Your task to perform on an android device: turn off location Image 0: 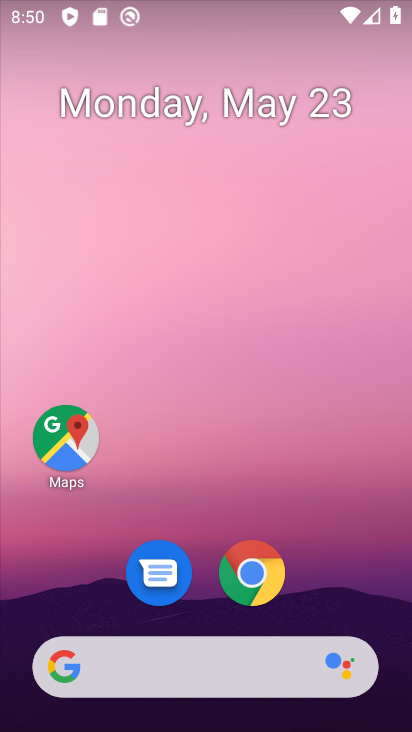
Step 0: drag from (367, 599) to (353, 229)
Your task to perform on an android device: turn off location Image 1: 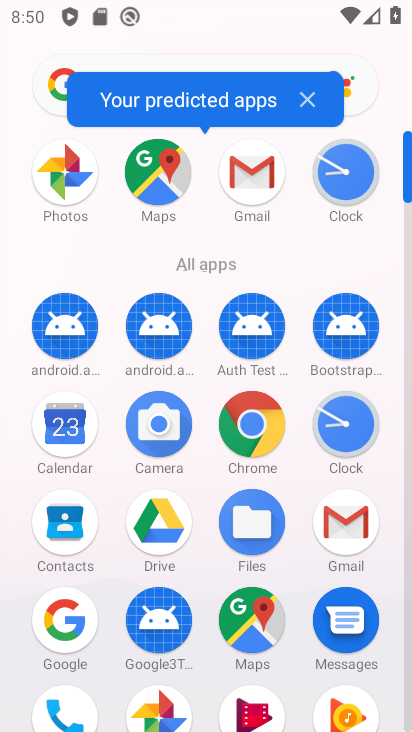
Step 1: drag from (382, 617) to (391, 345)
Your task to perform on an android device: turn off location Image 2: 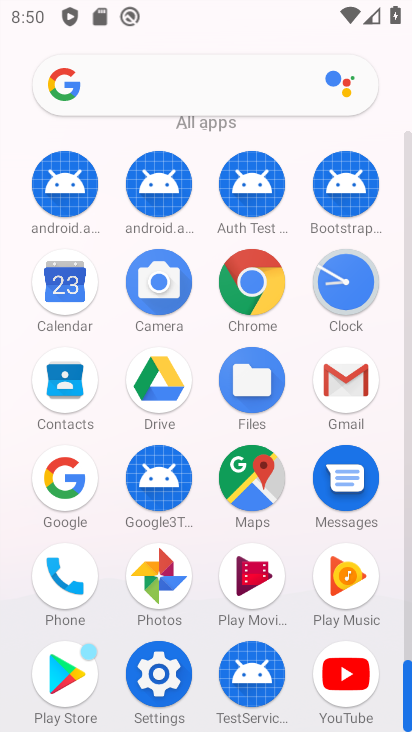
Step 2: click (166, 699)
Your task to perform on an android device: turn off location Image 3: 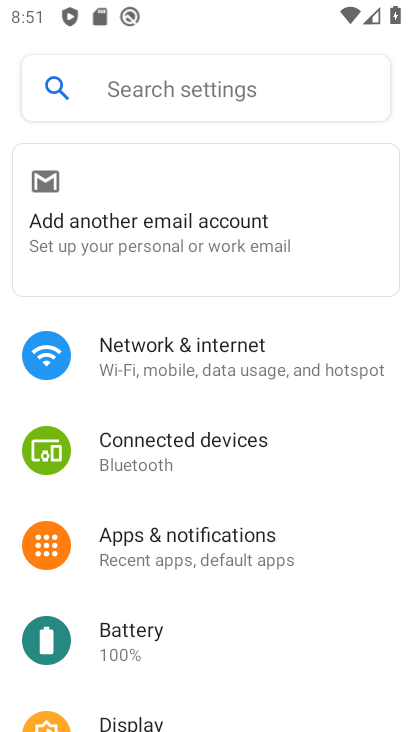
Step 3: drag from (350, 613) to (358, 514)
Your task to perform on an android device: turn off location Image 4: 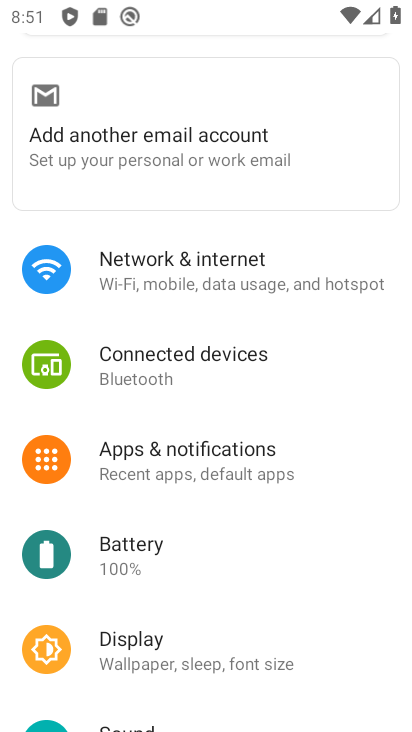
Step 4: drag from (354, 617) to (354, 511)
Your task to perform on an android device: turn off location Image 5: 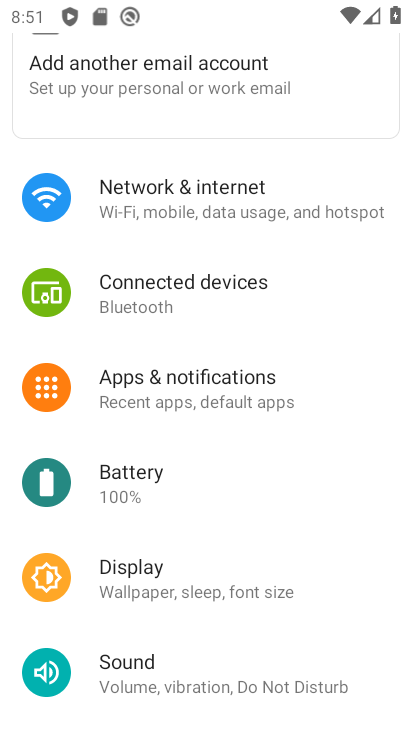
Step 5: drag from (350, 543) to (354, 440)
Your task to perform on an android device: turn off location Image 6: 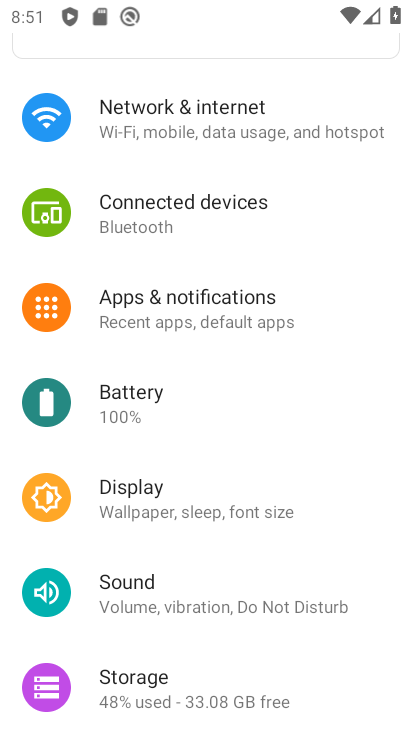
Step 6: drag from (369, 552) to (353, 416)
Your task to perform on an android device: turn off location Image 7: 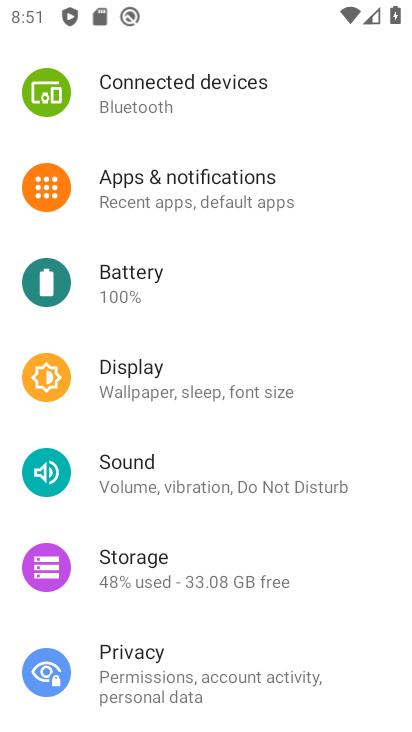
Step 7: drag from (364, 566) to (360, 455)
Your task to perform on an android device: turn off location Image 8: 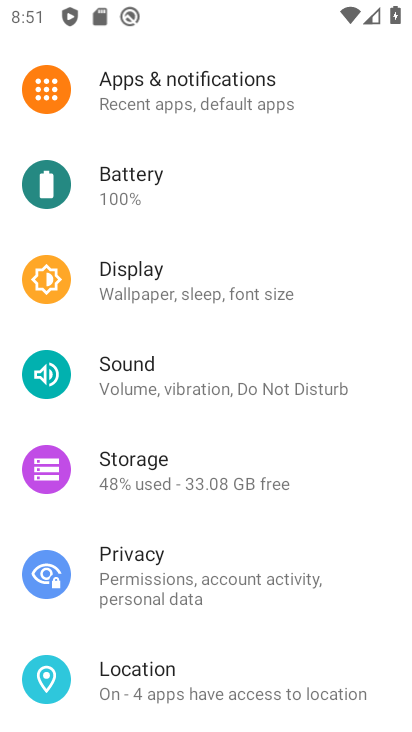
Step 8: drag from (362, 587) to (360, 459)
Your task to perform on an android device: turn off location Image 9: 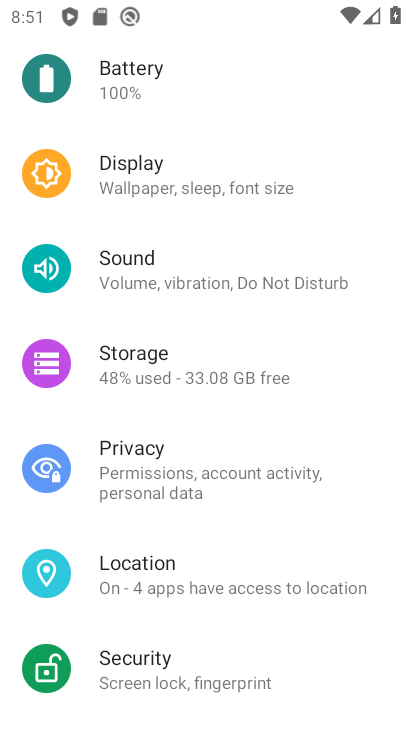
Step 9: click (354, 593)
Your task to perform on an android device: turn off location Image 10: 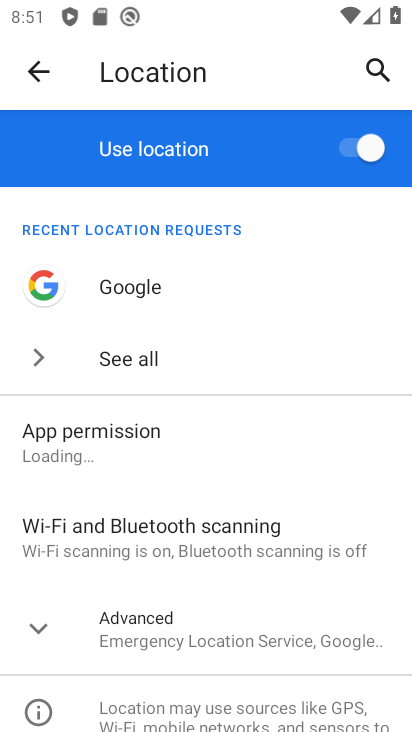
Step 10: click (373, 160)
Your task to perform on an android device: turn off location Image 11: 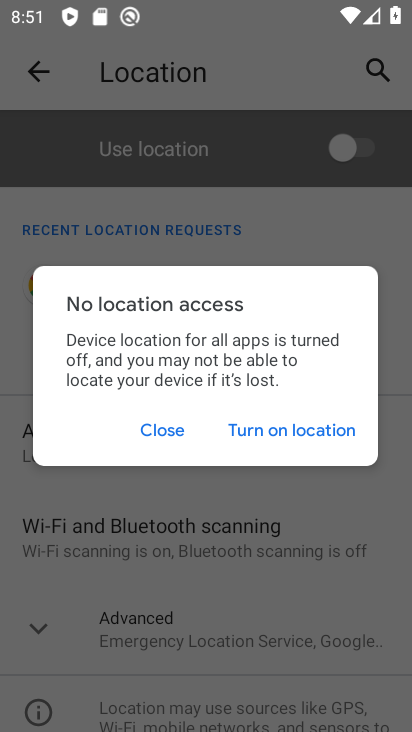
Step 11: task complete